Your task to perform on an android device: snooze an email in the gmail app Image 0: 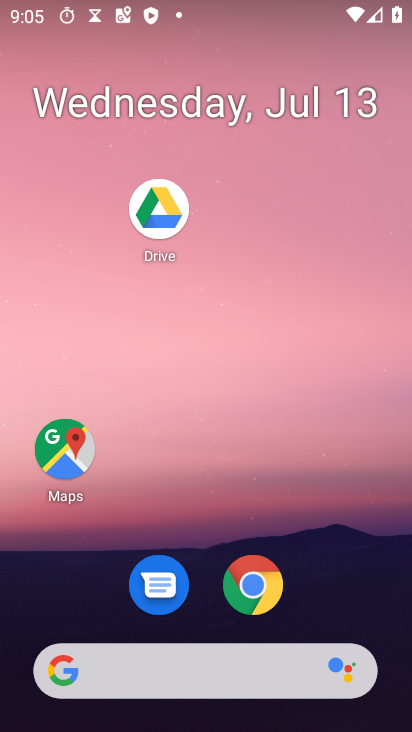
Step 0: press home button
Your task to perform on an android device: snooze an email in the gmail app Image 1: 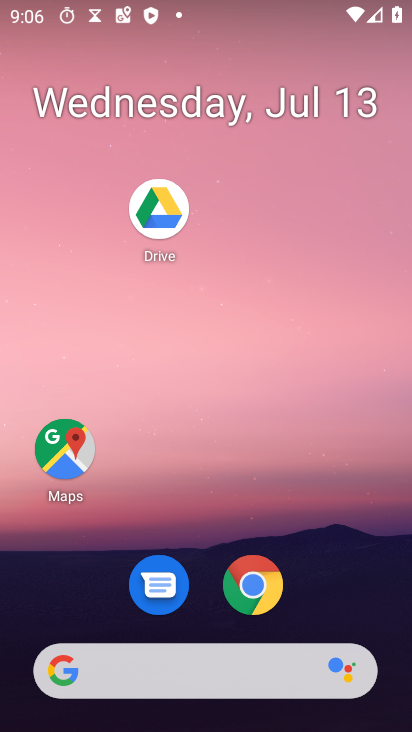
Step 1: drag from (181, 676) to (294, 151)
Your task to perform on an android device: snooze an email in the gmail app Image 2: 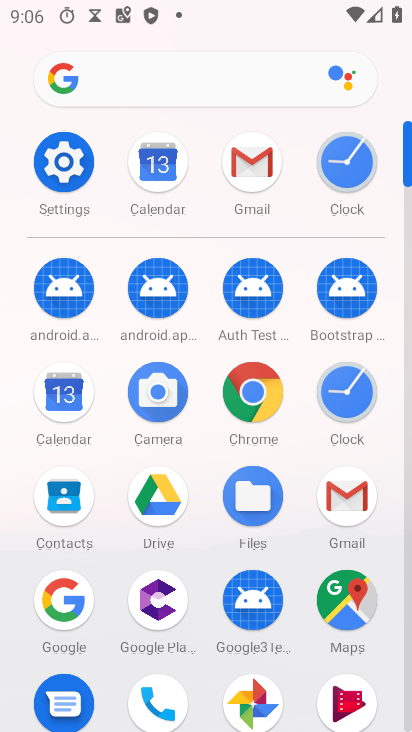
Step 2: click (350, 501)
Your task to perform on an android device: snooze an email in the gmail app Image 3: 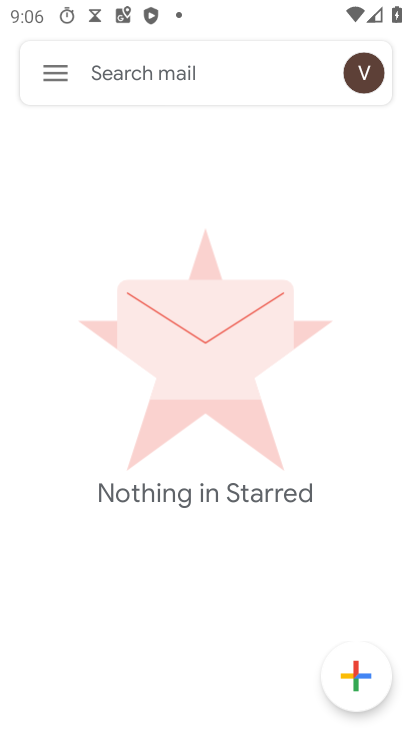
Step 3: click (67, 78)
Your task to perform on an android device: snooze an email in the gmail app Image 4: 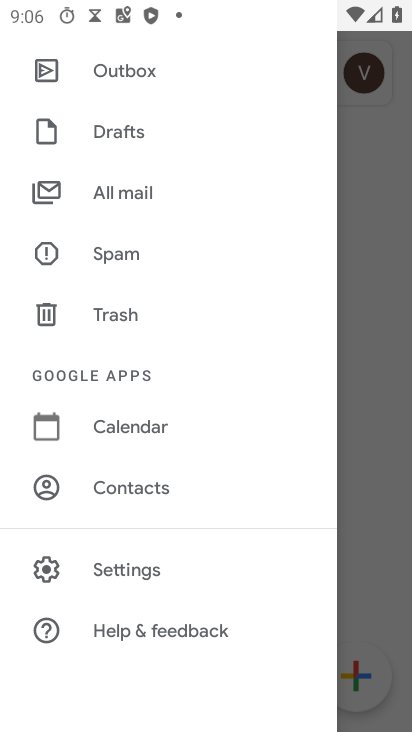
Step 4: click (152, 203)
Your task to perform on an android device: snooze an email in the gmail app Image 5: 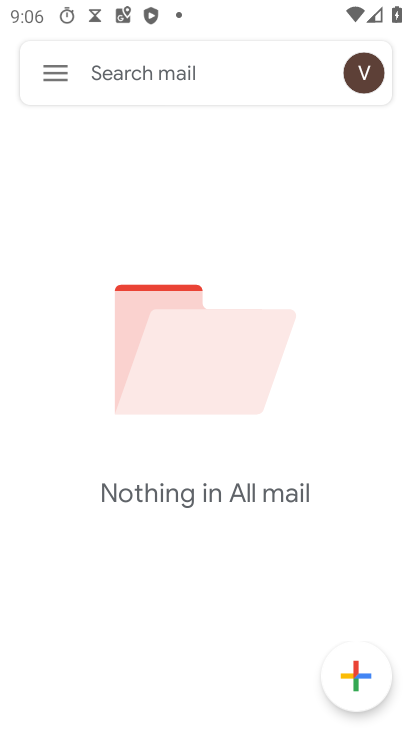
Step 5: task complete